Your task to perform on an android device: make emails show in primary in the gmail app Image 0: 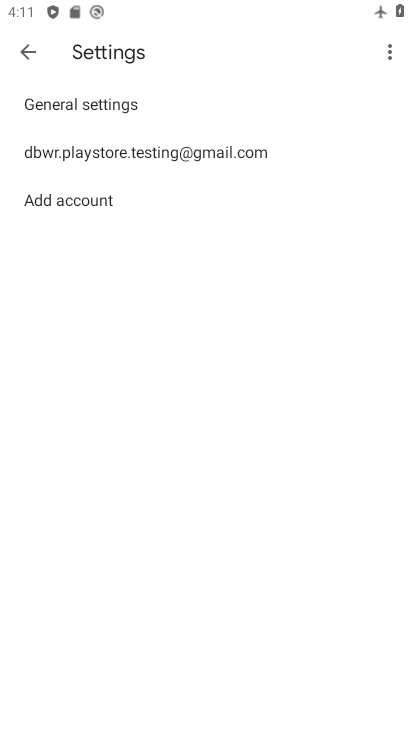
Step 0: click (245, 159)
Your task to perform on an android device: make emails show in primary in the gmail app Image 1: 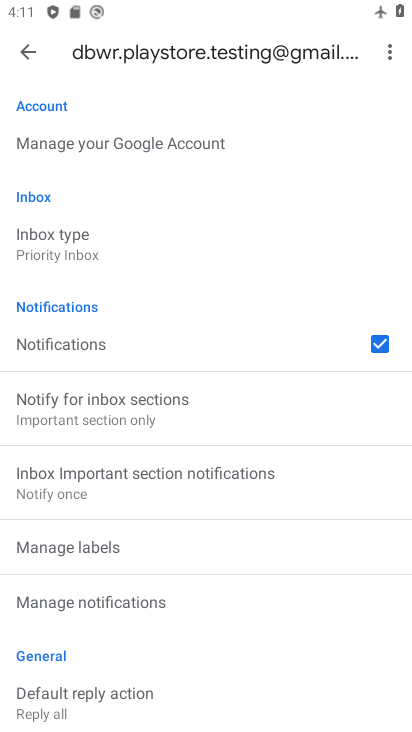
Step 1: drag from (303, 622) to (306, 496)
Your task to perform on an android device: make emails show in primary in the gmail app Image 2: 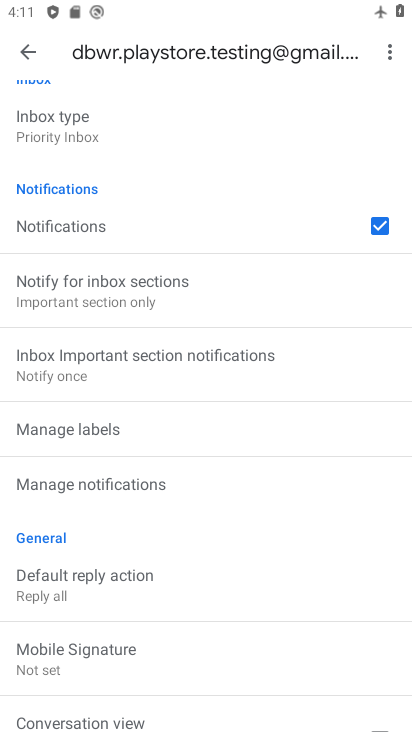
Step 2: drag from (301, 654) to (308, 486)
Your task to perform on an android device: make emails show in primary in the gmail app Image 3: 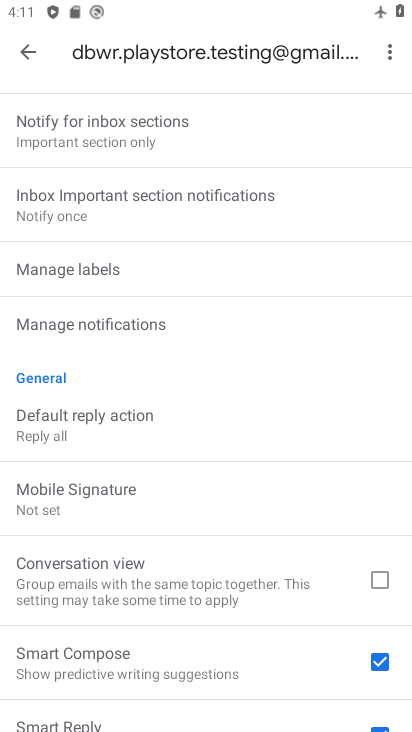
Step 3: drag from (303, 658) to (293, 517)
Your task to perform on an android device: make emails show in primary in the gmail app Image 4: 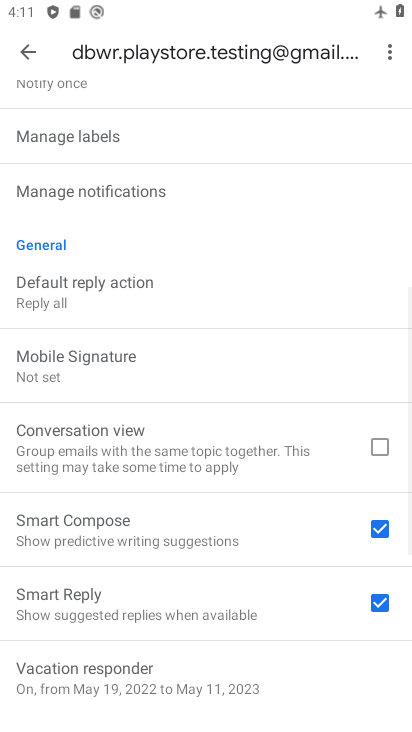
Step 4: drag from (301, 648) to (304, 484)
Your task to perform on an android device: make emails show in primary in the gmail app Image 5: 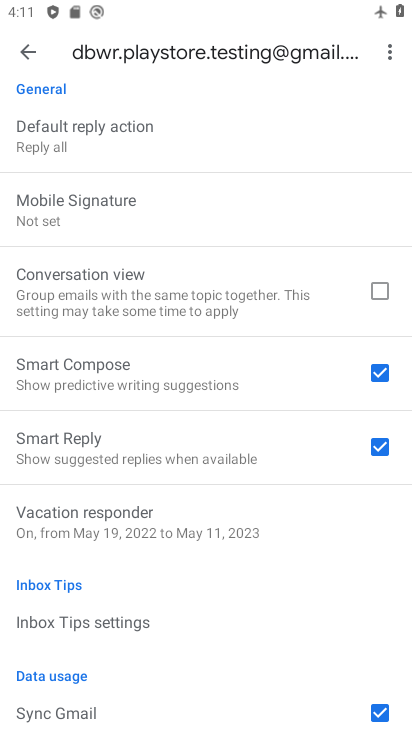
Step 5: drag from (296, 637) to (297, 504)
Your task to perform on an android device: make emails show in primary in the gmail app Image 6: 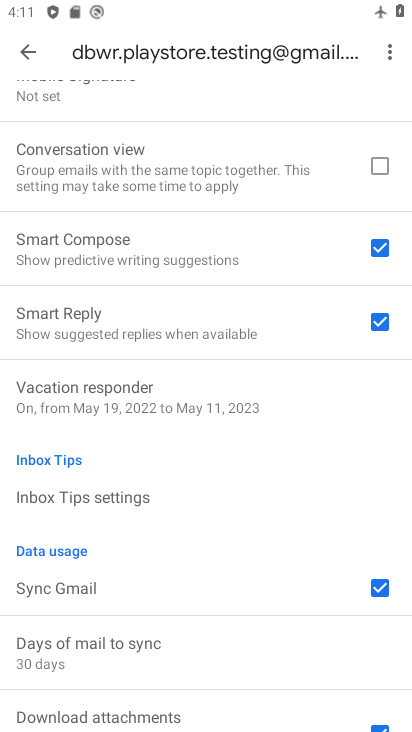
Step 6: drag from (285, 687) to (289, 524)
Your task to perform on an android device: make emails show in primary in the gmail app Image 7: 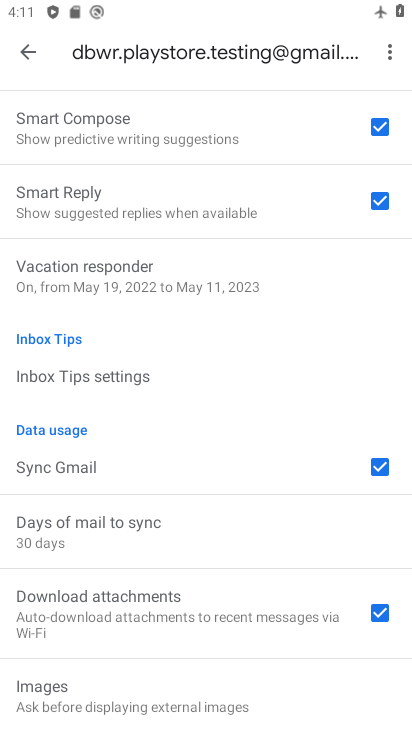
Step 7: drag from (289, 457) to (283, 576)
Your task to perform on an android device: make emails show in primary in the gmail app Image 8: 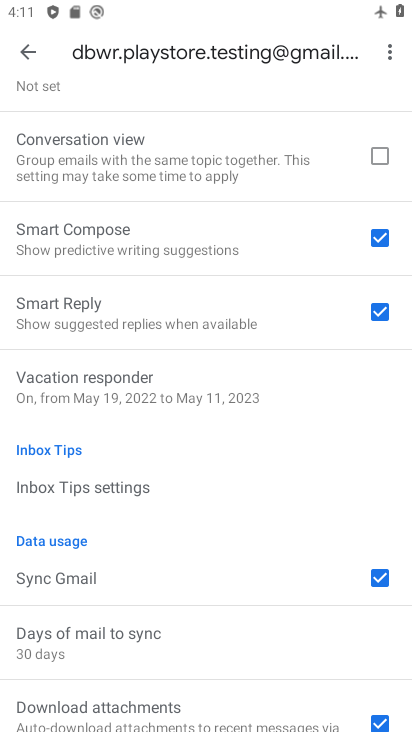
Step 8: drag from (291, 420) to (285, 535)
Your task to perform on an android device: make emails show in primary in the gmail app Image 9: 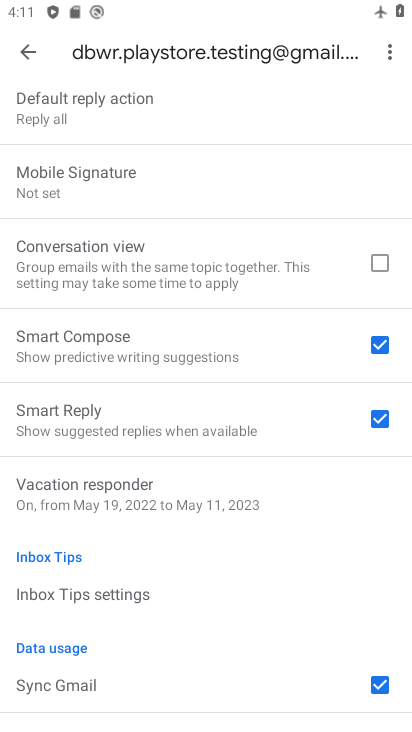
Step 9: drag from (305, 404) to (299, 529)
Your task to perform on an android device: make emails show in primary in the gmail app Image 10: 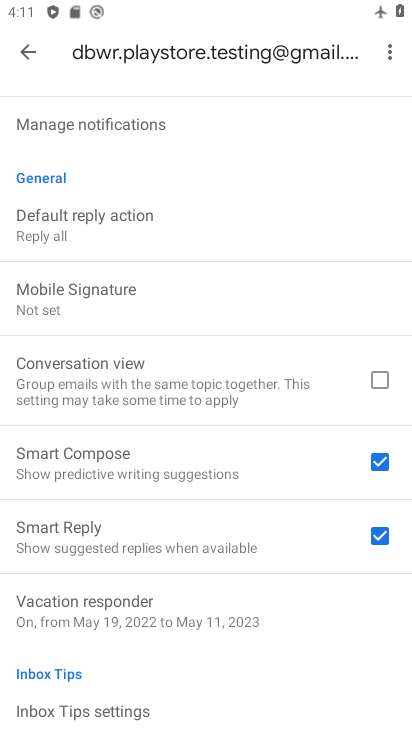
Step 10: drag from (304, 388) to (272, 550)
Your task to perform on an android device: make emails show in primary in the gmail app Image 11: 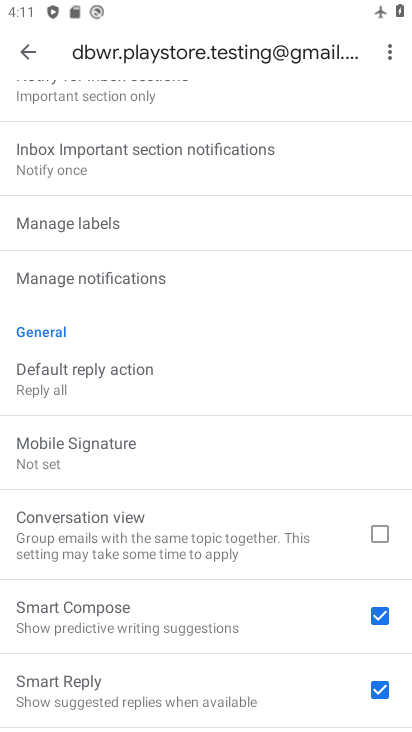
Step 11: drag from (280, 379) to (270, 515)
Your task to perform on an android device: make emails show in primary in the gmail app Image 12: 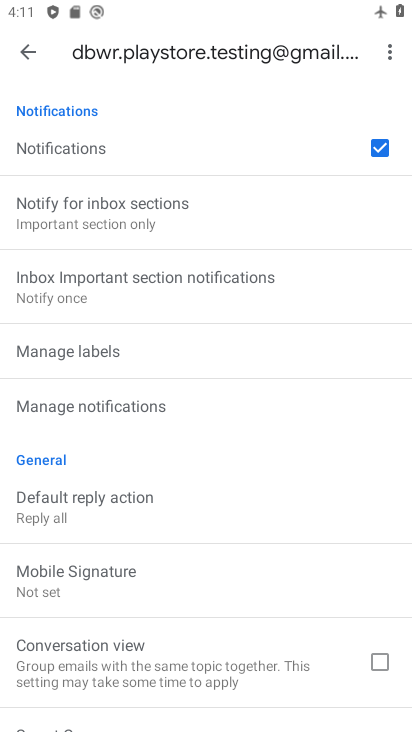
Step 12: drag from (247, 355) to (232, 554)
Your task to perform on an android device: make emails show in primary in the gmail app Image 13: 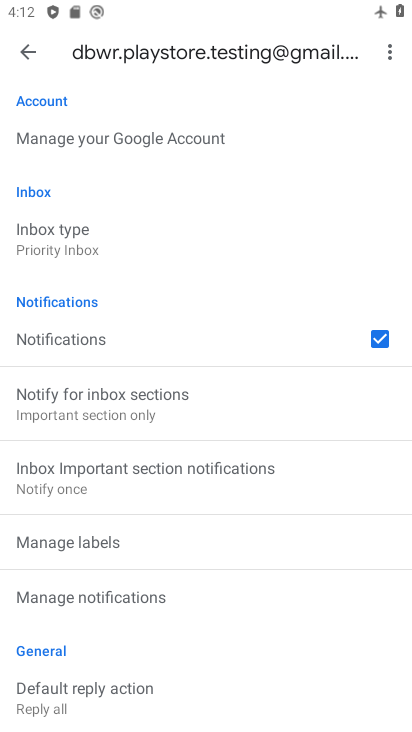
Step 13: drag from (233, 316) to (234, 450)
Your task to perform on an android device: make emails show in primary in the gmail app Image 14: 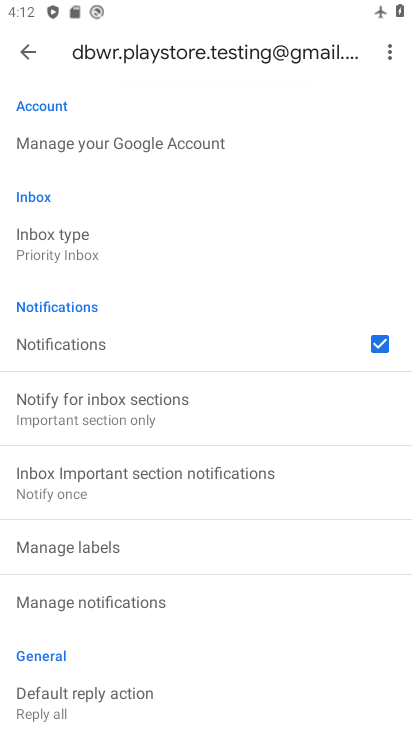
Step 14: click (72, 263)
Your task to perform on an android device: make emails show in primary in the gmail app Image 15: 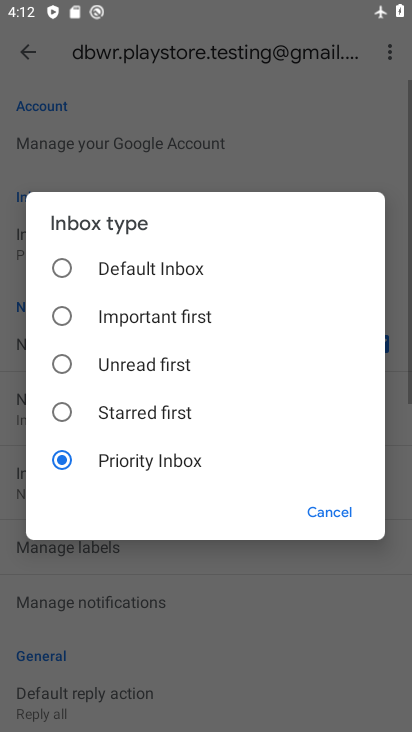
Step 15: click (186, 289)
Your task to perform on an android device: make emails show in primary in the gmail app Image 16: 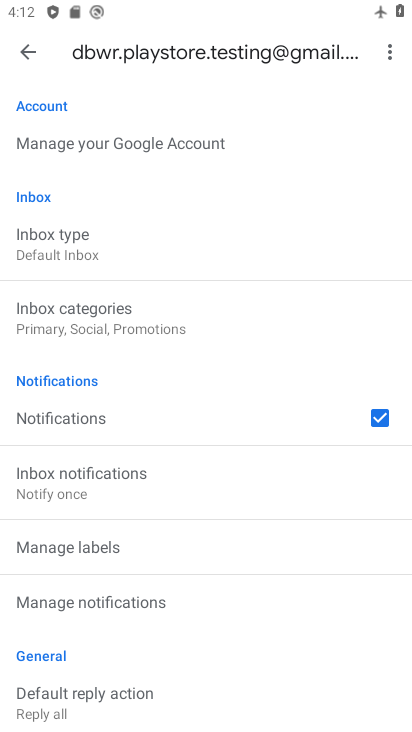
Step 16: click (152, 312)
Your task to perform on an android device: make emails show in primary in the gmail app Image 17: 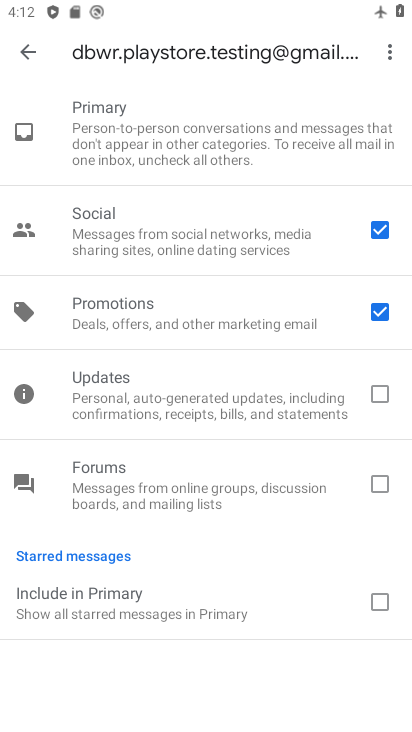
Step 17: click (377, 320)
Your task to perform on an android device: make emails show in primary in the gmail app Image 18: 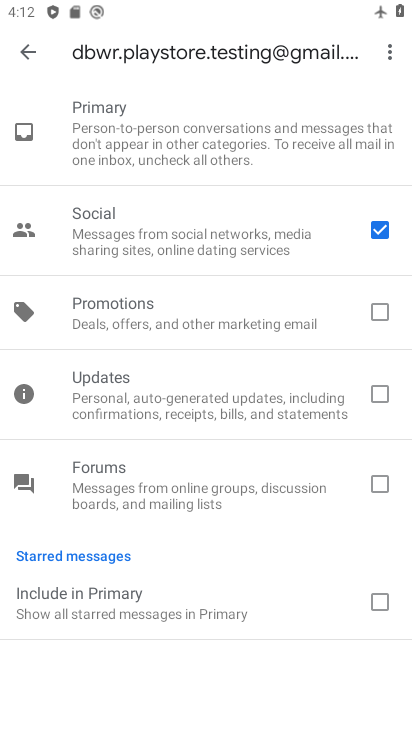
Step 18: click (386, 234)
Your task to perform on an android device: make emails show in primary in the gmail app Image 19: 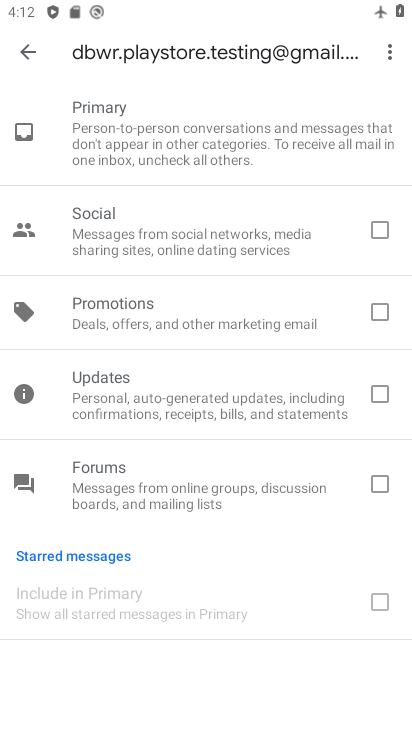
Step 19: task complete